Your task to perform on an android device: Go to eBay Image 0: 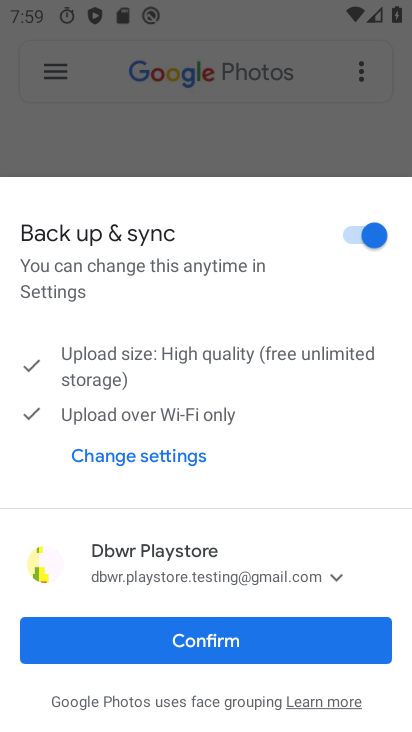
Step 0: press home button
Your task to perform on an android device: Go to eBay Image 1: 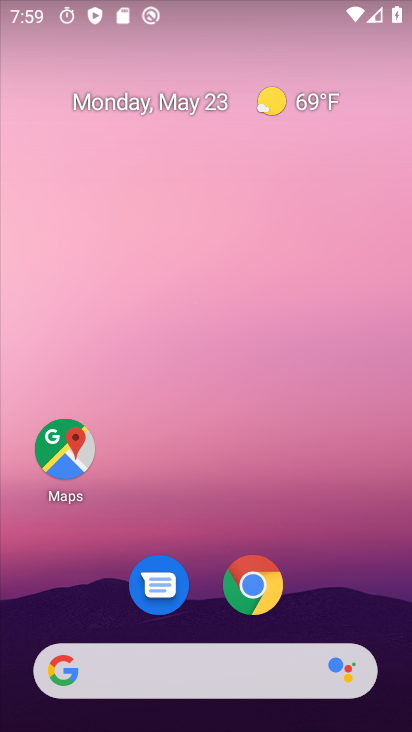
Step 1: click (222, 666)
Your task to perform on an android device: Go to eBay Image 2: 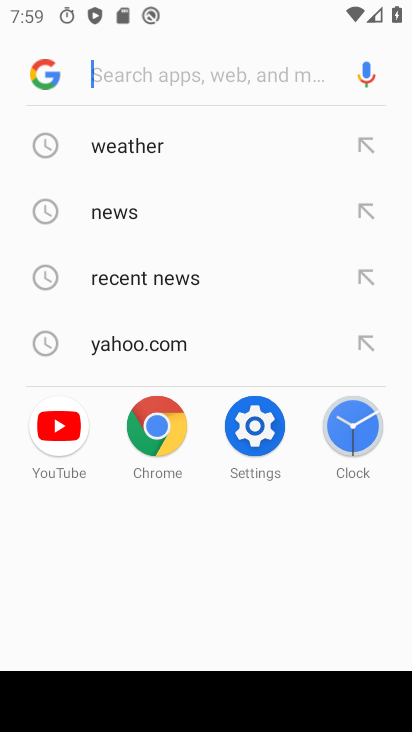
Step 2: type "ebay"
Your task to perform on an android device: Go to eBay Image 3: 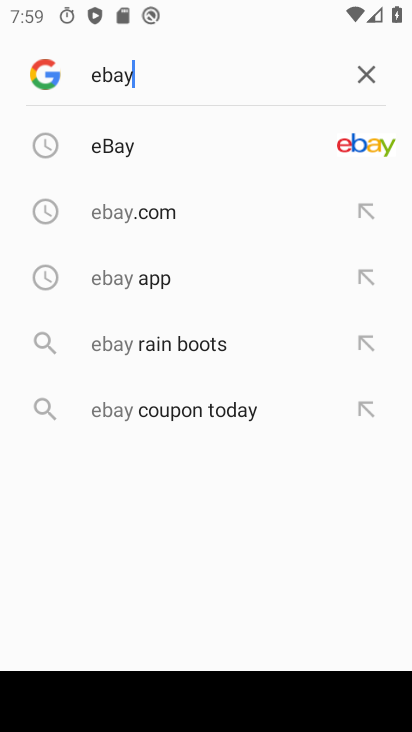
Step 3: click (118, 147)
Your task to perform on an android device: Go to eBay Image 4: 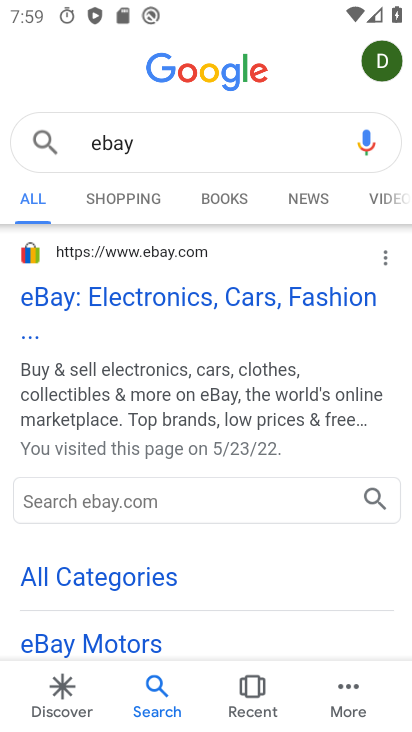
Step 4: click (53, 294)
Your task to perform on an android device: Go to eBay Image 5: 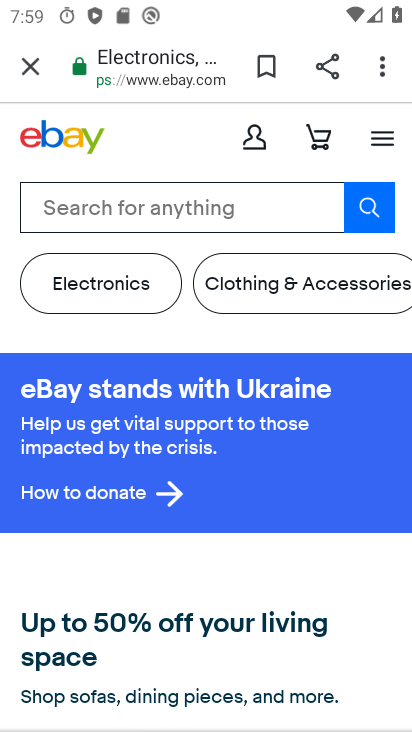
Step 5: task complete